Your task to perform on an android device: Go to ESPN.com Image 0: 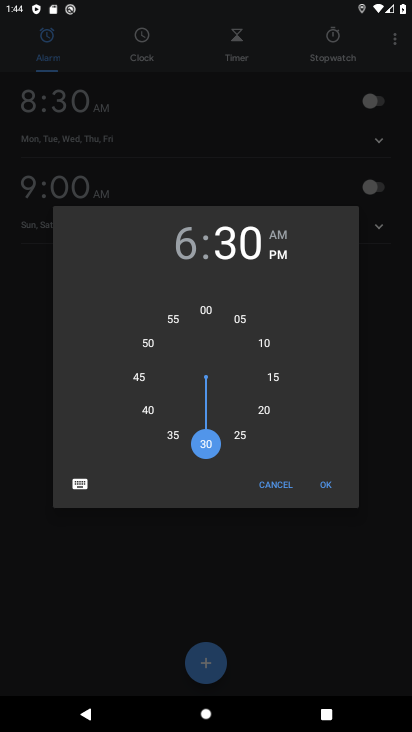
Step 0: press home button
Your task to perform on an android device: Go to ESPN.com Image 1: 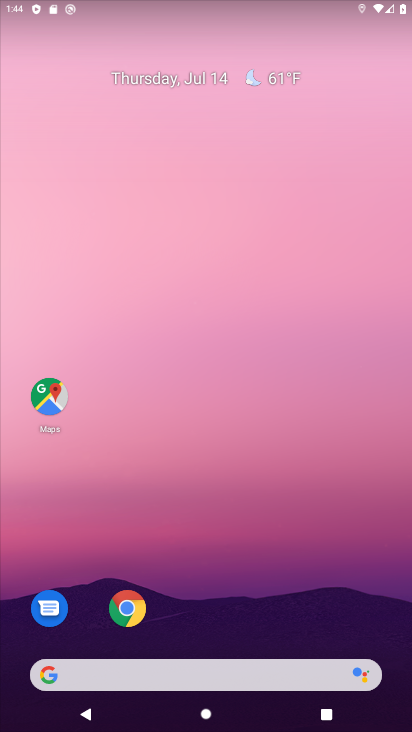
Step 1: click (127, 608)
Your task to perform on an android device: Go to ESPN.com Image 2: 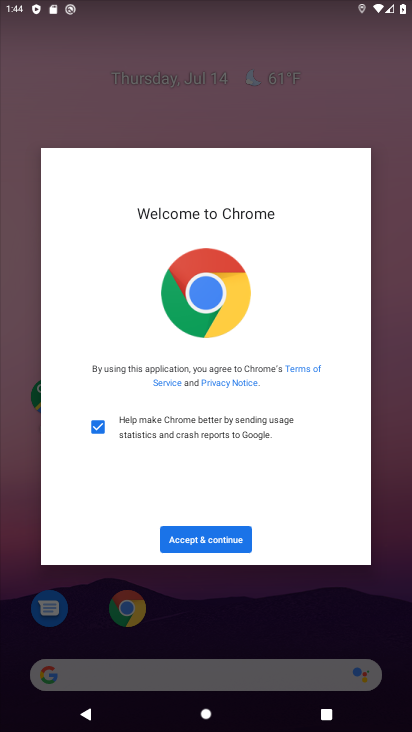
Step 2: click (191, 538)
Your task to perform on an android device: Go to ESPN.com Image 3: 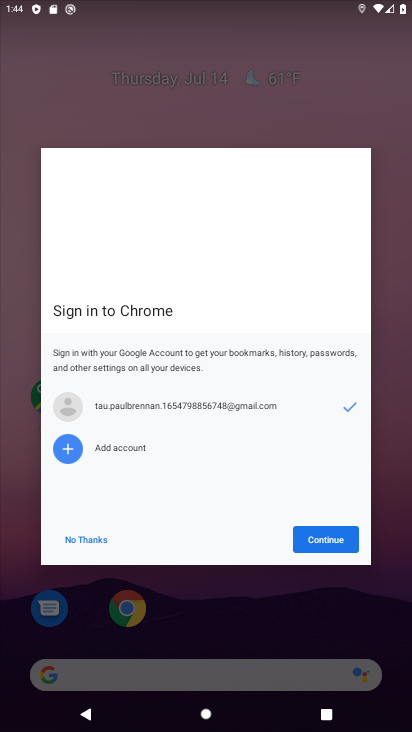
Step 3: click (324, 538)
Your task to perform on an android device: Go to ESPN.com Image 4: 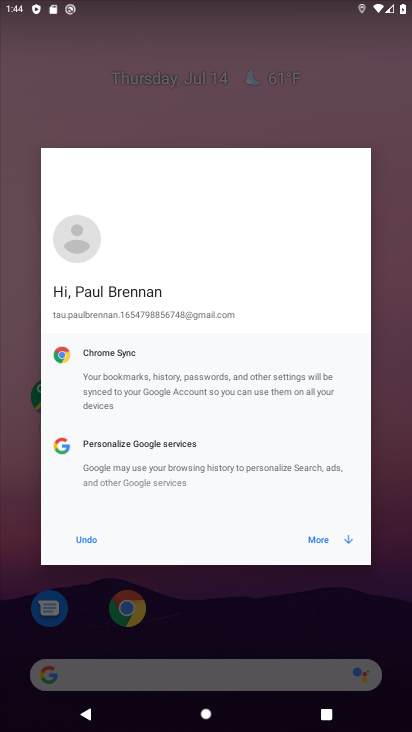
Step 4: click (324, 538)
Your task to perform on an android device: Go to ESPN.com Image 5: 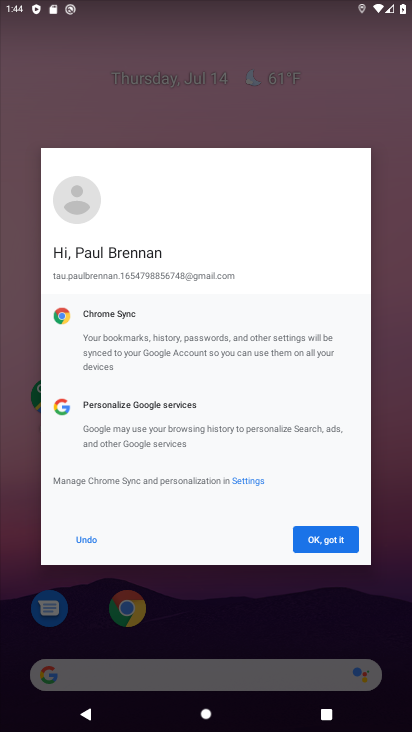
Step 5: click (324, 538)
Your task to perform on an android device: Go to ESPN.com Image 6: 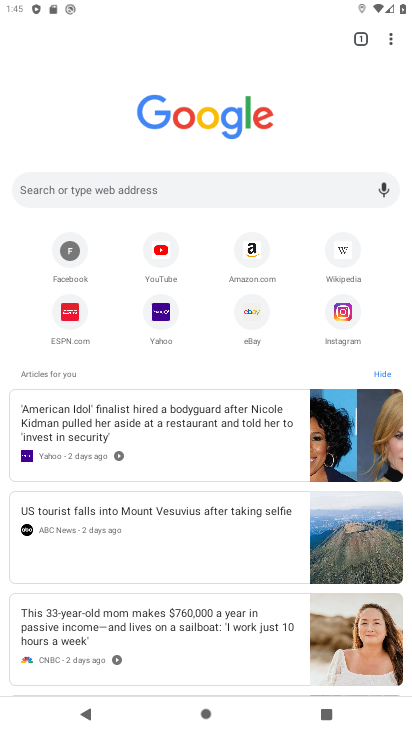
Step 6: click (74, 318)
Your task to perform on an android device: Go to ESPN.com Image 7: 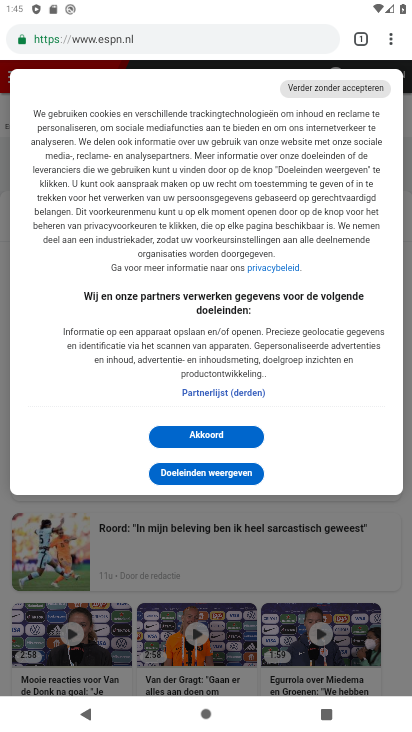
Step 7: click (214, 437)
Your task to perform on an android device: Go to ESPN.com Image 8: 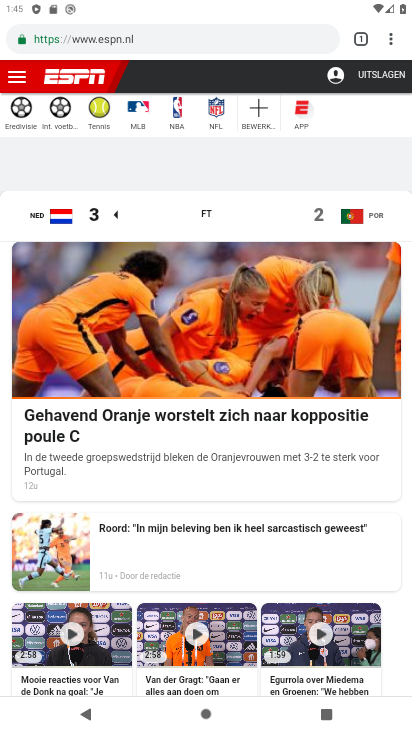
Step 8: task complete